Your task to perform on an android device: turn on the 24-hour format for clock Image 0: 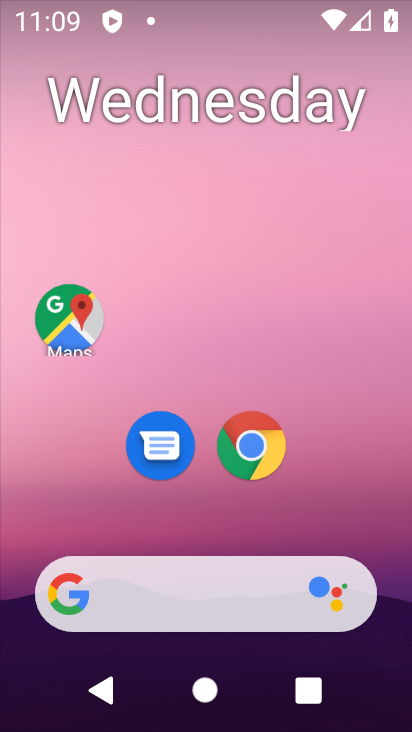
Step 0: drag from (183, 467) to (221, 18)
Your task to perform on an android device: turn on the 24-hour format for clock Image 1: 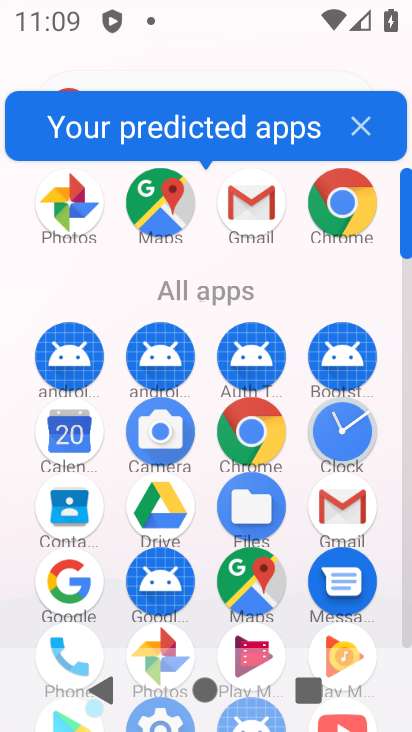
Step 1: click (348, 427)
Your task to perform on an android device: turn on the 24-hour format for clock Image 2: 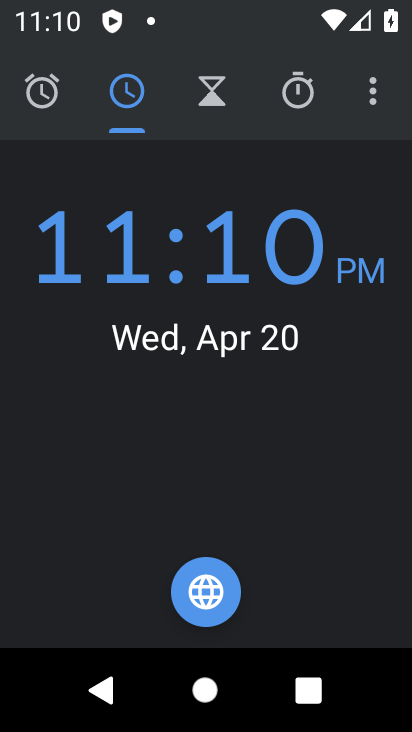
Step 2: click (365, 76)
Your task to perform on an android device: turn on the 24-hour format for clock Image 3: 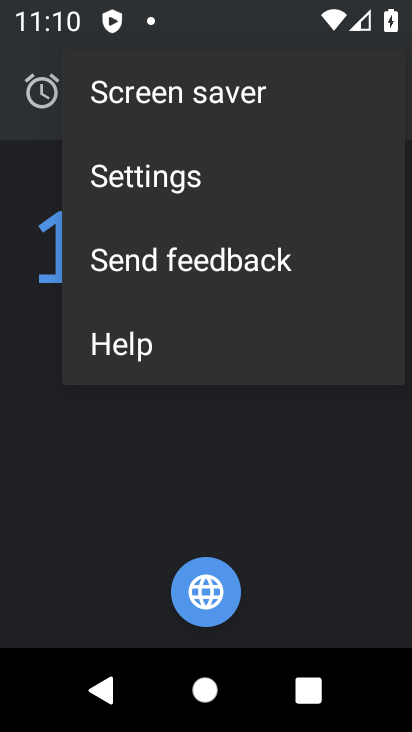
Step 3: click (141, 188)
Your task to perform on an android device: turn on the 24-hour format for clock Image 4: 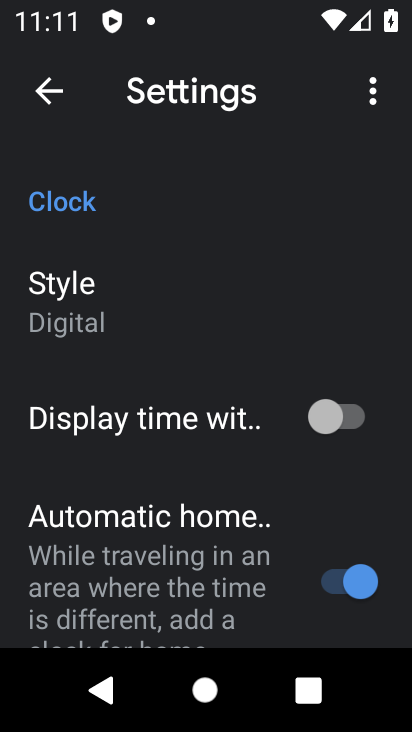
Step 4: drag from (183, 583) to (248, 87)
Your task to perform on an android device: turn on the 24-hour format for clock Image 5: 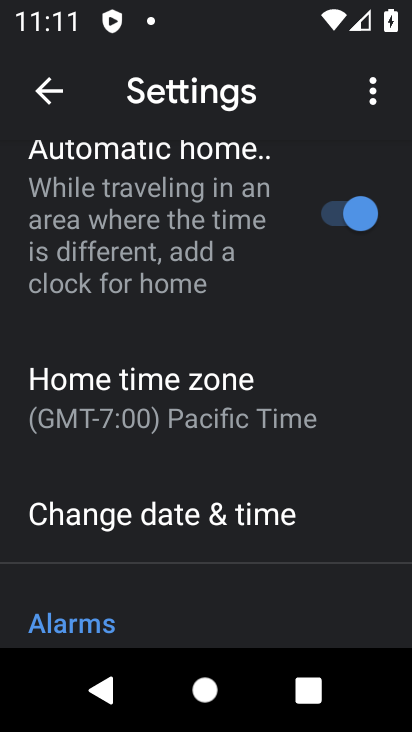
Step 5: click (164, 513)
Your task to perform on an android device: turn on the 24-hour format for clock Image 6: 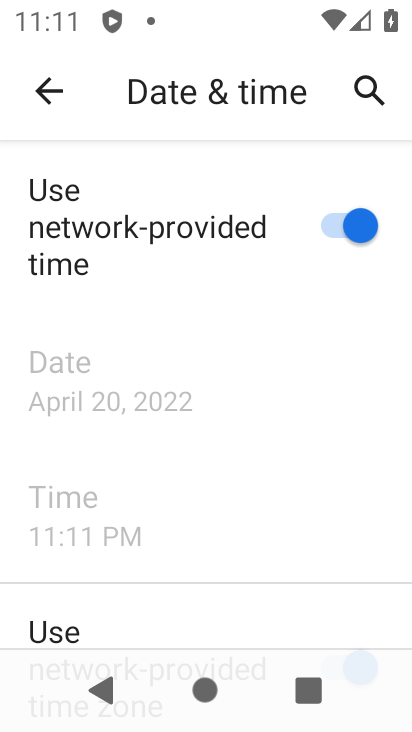
Step 6: drag from (183, 566) to (246, 143)
Your task to perform on an android device: turn on the 24-hour format for clock Image 7: 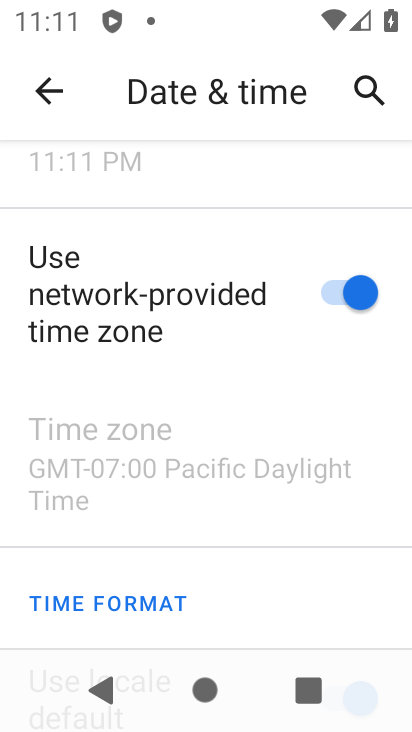
Step 7: drag from (228, 289) to (256, 117)
Your task to perform on an android device: turn on the 24-hour format for clock Image 8: 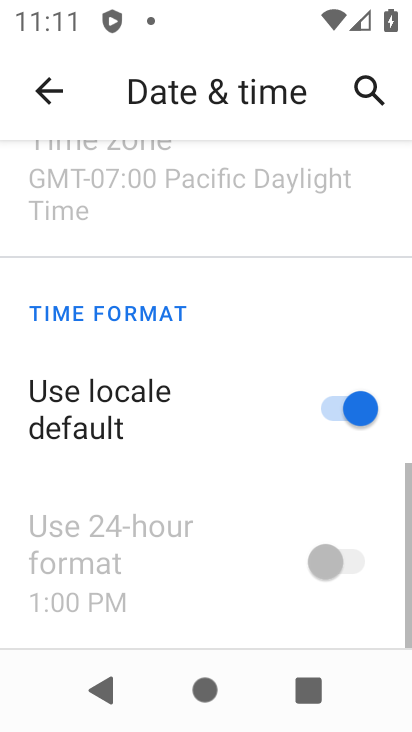
Step 8: drag from (200, 561) to (238, 241)
Your task to perform on an android device: turn on the 24-hour format for clock Image 9: 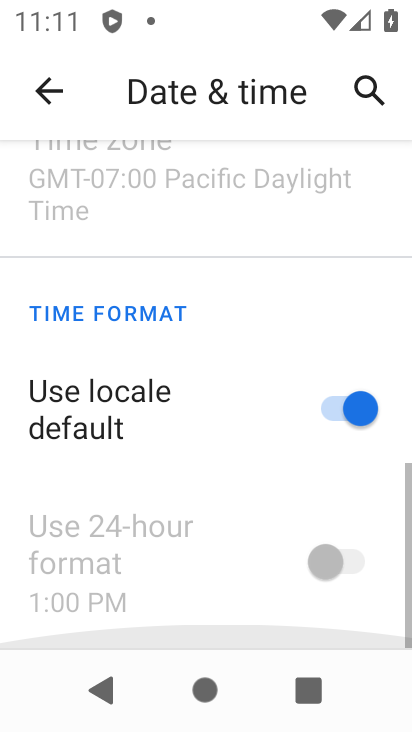
Step 9: click (355, 411)
Your task to perform on an android device: turn on the 24-hour format for clock Image 10: 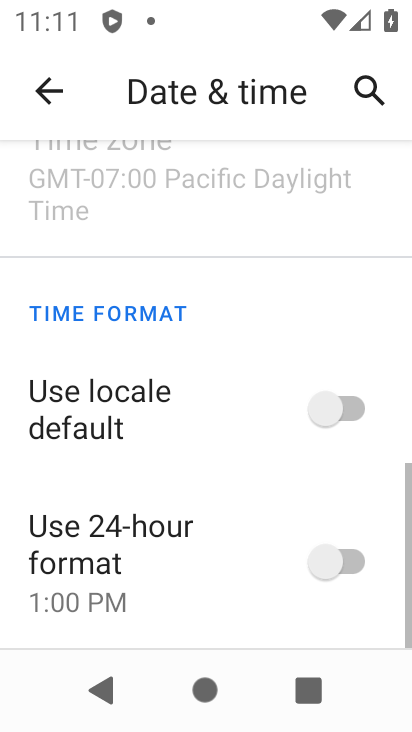
Step 10: click (336, 554)
Your task to perform on an android device: turn on the 24-hour format for clock Image 11: 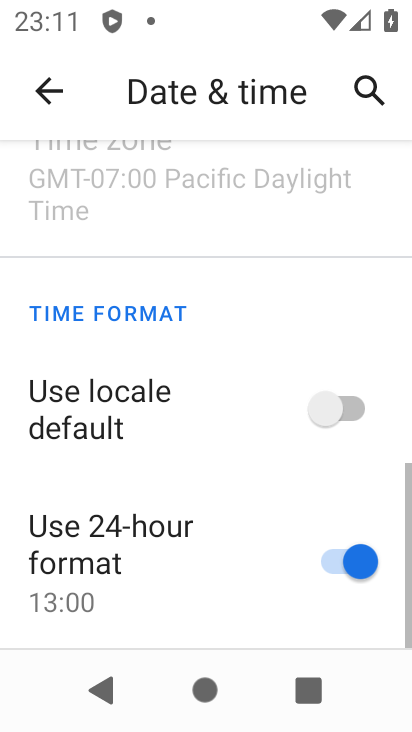
Step 11: task complete